Your task to perform on an android device: Open eBay Image 0: 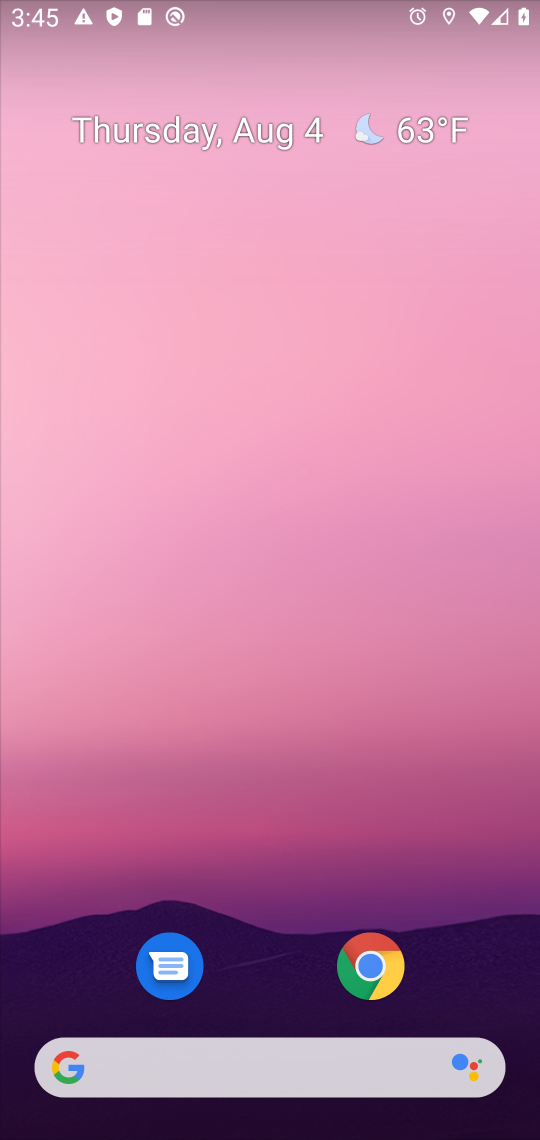
Step 0: click (60, 1083)
Your task to perform on an android device: Open eBay Image 1: 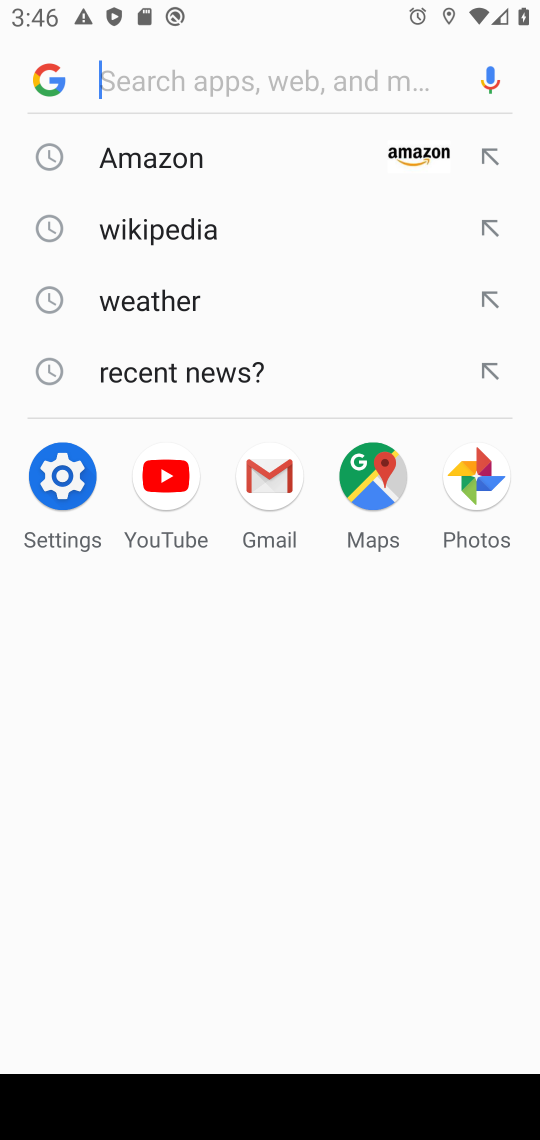
Step 1: press enter
Your task to perform on an android device: Open eBay Image 2: 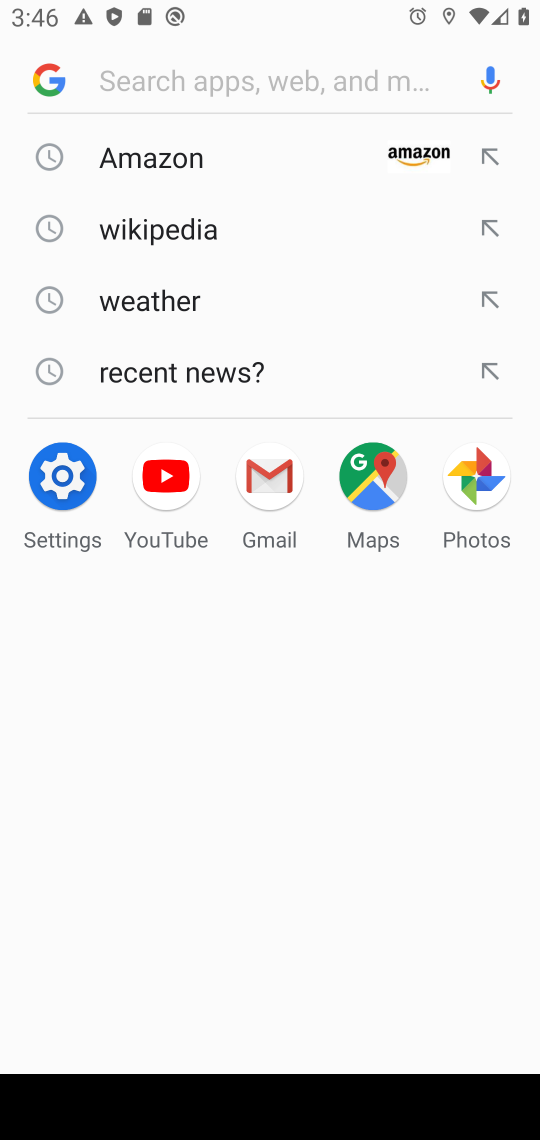
Step 2: type " eBay"
Your task to perform on an android device: Open eBay Image 3: 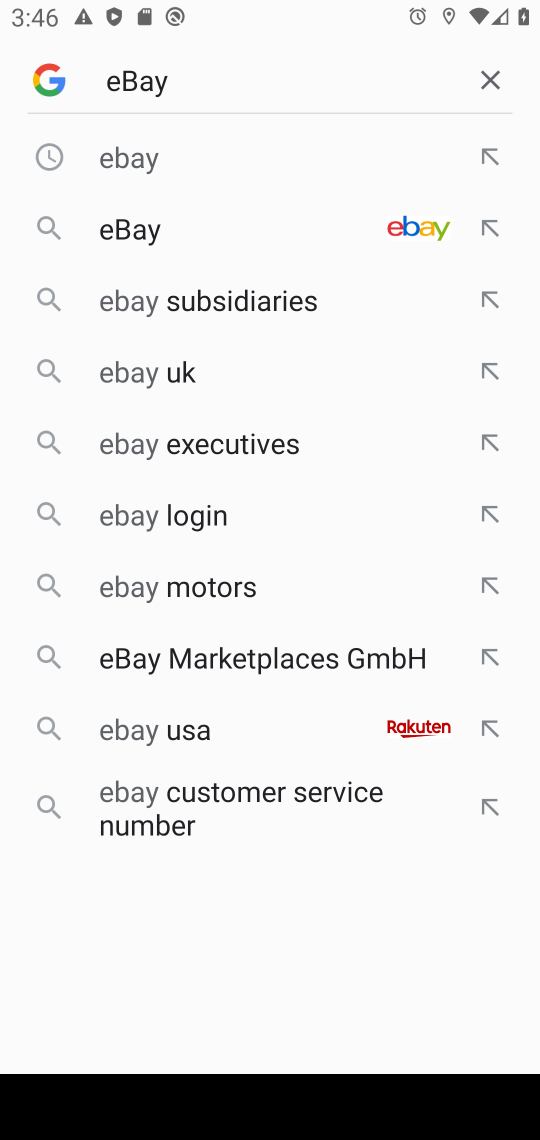
Step 3: press enter
Your task to perform on an android device: Open eBay Image 4: 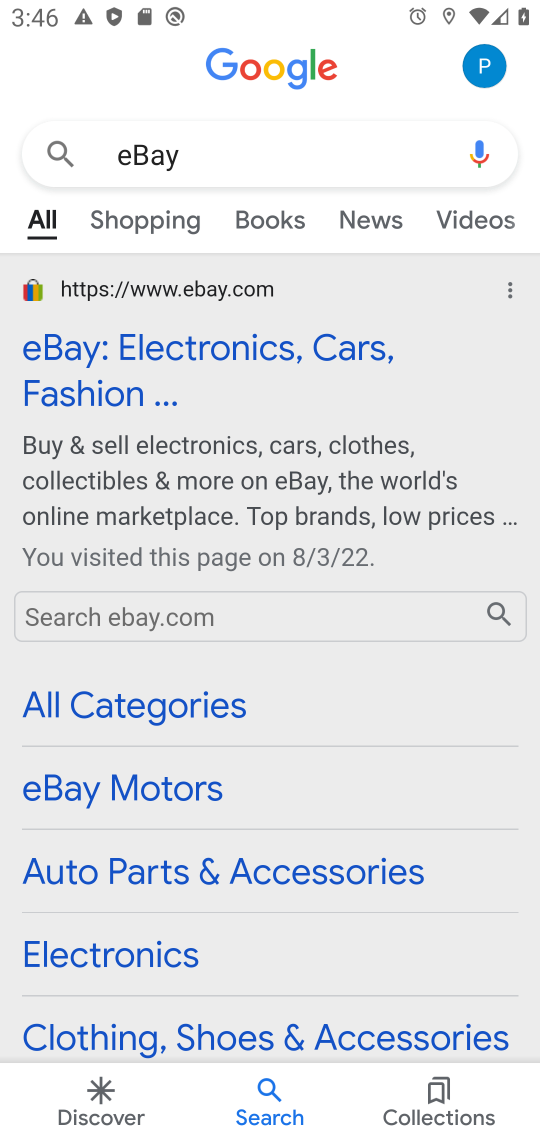
Step 4: click (189, 346)
Your task to perform on an android device: Open eBay Image 5: 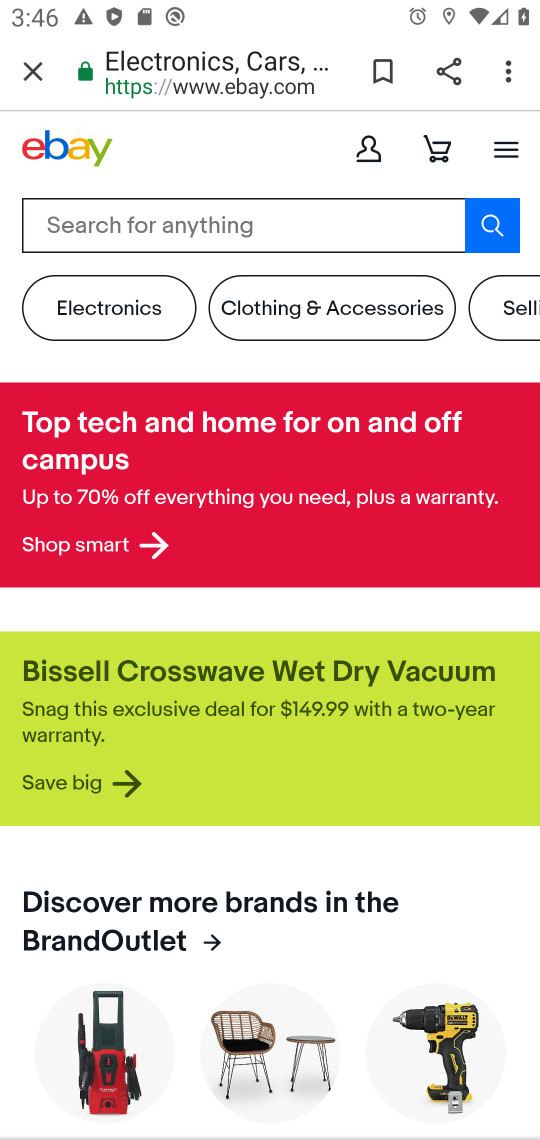
Step 5: task complete